Your task to perform on an android device: Go to display settings Image 0: 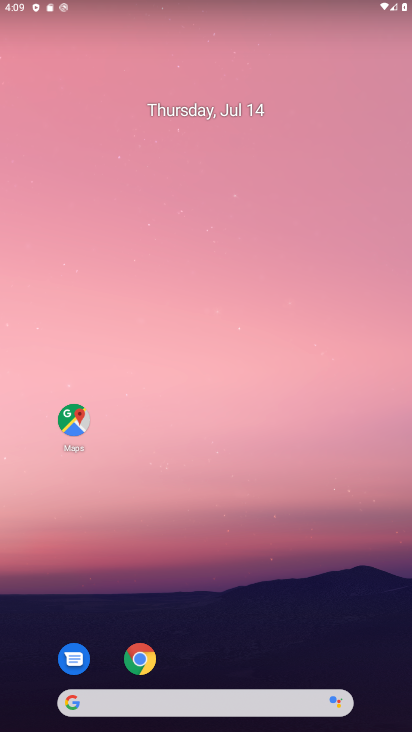
Step 0: drag from (280, 504) to (216, 162)
Your task to perform on an android device: Go to display settings Image 1: 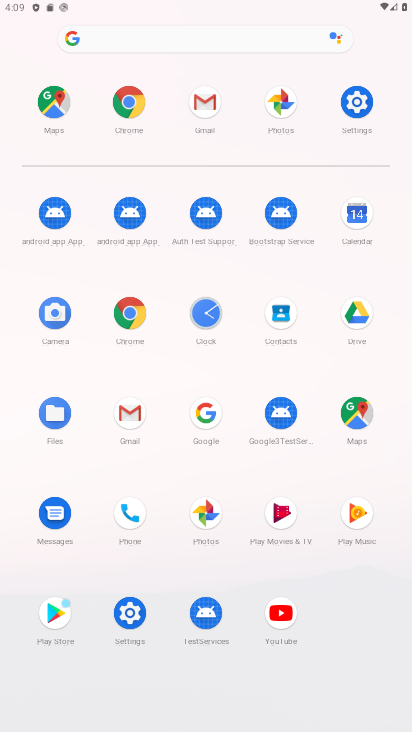
Step 1: click (131, 616)
Your task to perform on an android device: Go to display settings Image 2: 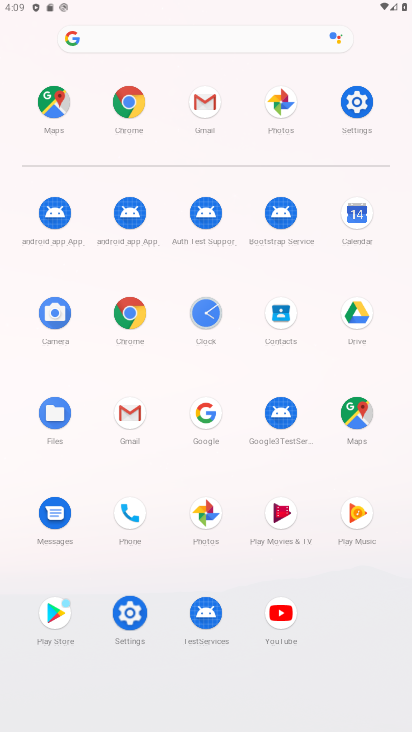
Step 2: click (129, 616)
Your task to perform on an android device: Go to display settings Image 3: 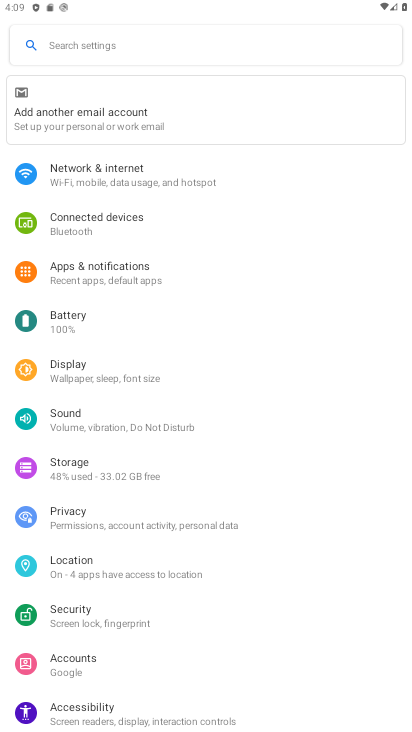
Step 3: click (73, 363)
Your task to perform on an android device: Go to display settings Image 4: 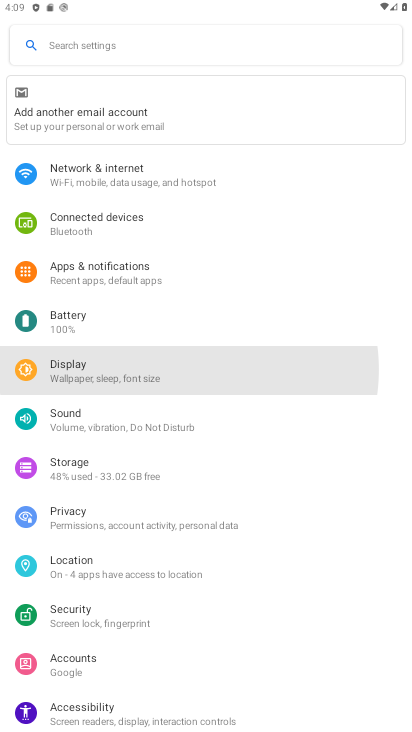
Step 4: click (73, 363)
Your task to perform on an android device: Go to display settings Image 5: 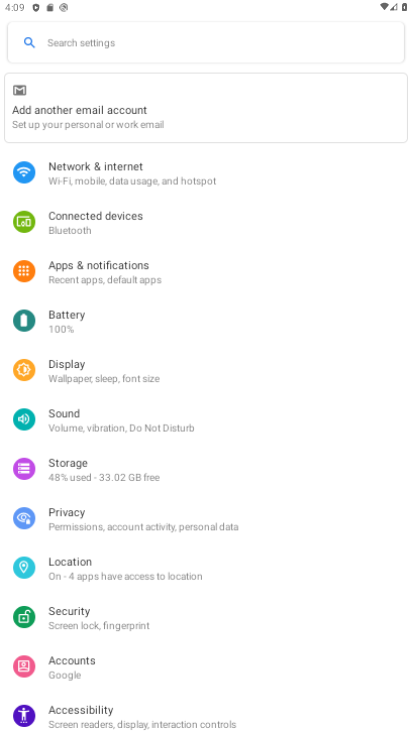
Step 5: click (76, 360)
Your task to perform on an android device: Go to display settings Image 6: 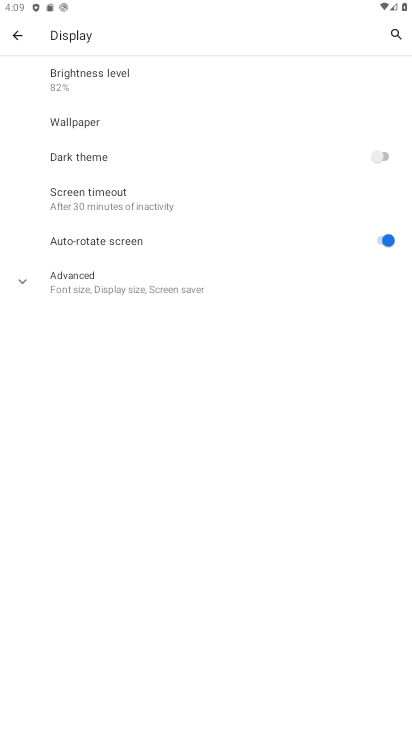
Step 6: task complete